Your task to perform on an android device: See recent photos Image 0: 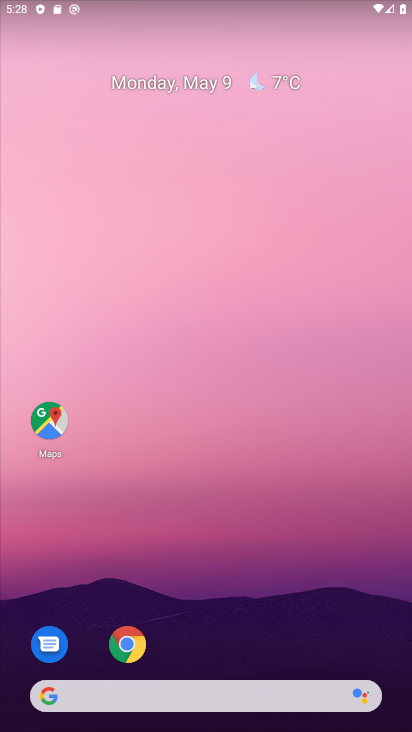
Step 0: drag from (219, 602) to (230, 63)
Your task to perform on an android device: See recent photos Image 1: 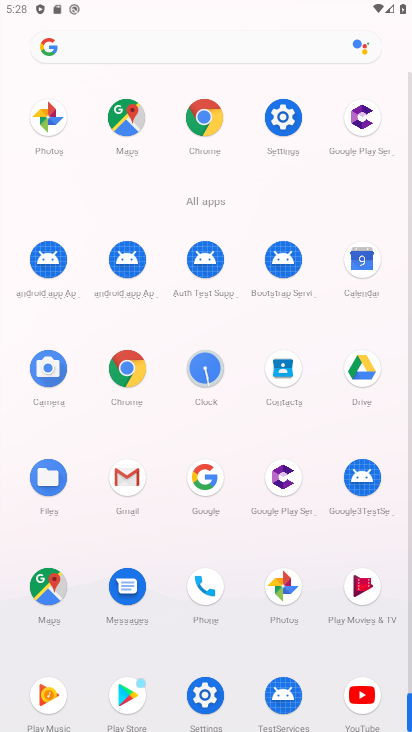
Step 1: click (280, 586)
Your task to perform on an android device: See recent photos Image 2: 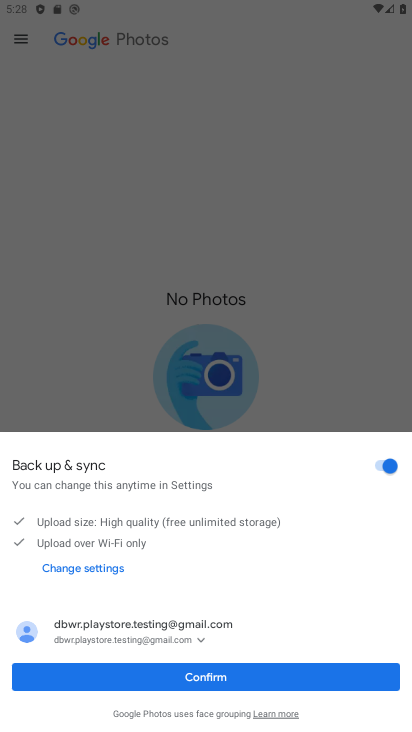
Step 2: click (219, 678)
Your task to perform on an android device: See recent photos Image 3: 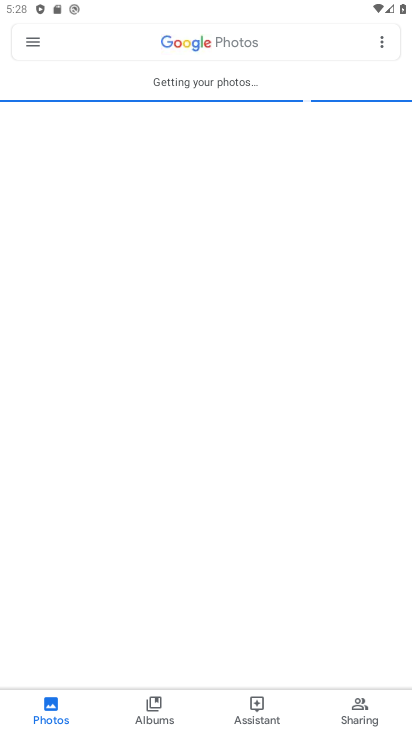
Step 3: click (23, 39)
Your task to perform on an android device: See recent photos Image 4: 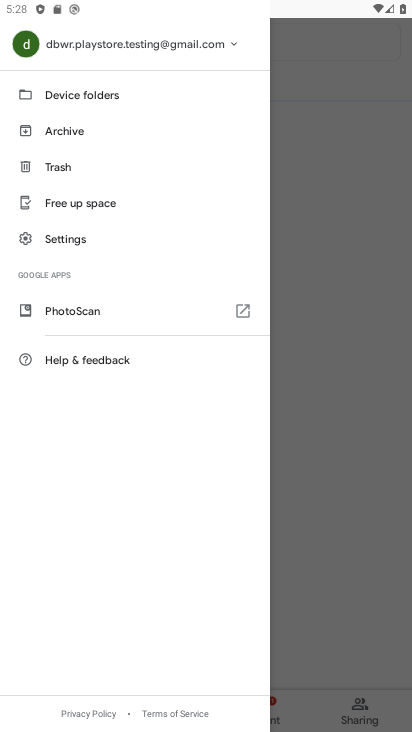
Step 4: click (336, 232)
Your task to perform on an android device: See recent photos Image 5: 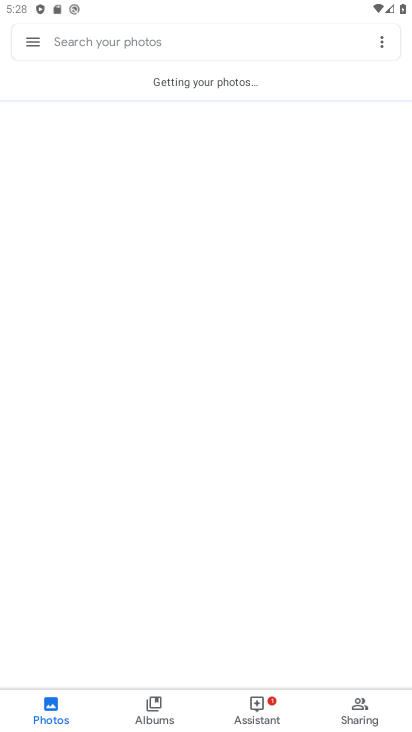
Step 5: click (154, 703)
Your task to perform on an android device: See recent photos Image 6: 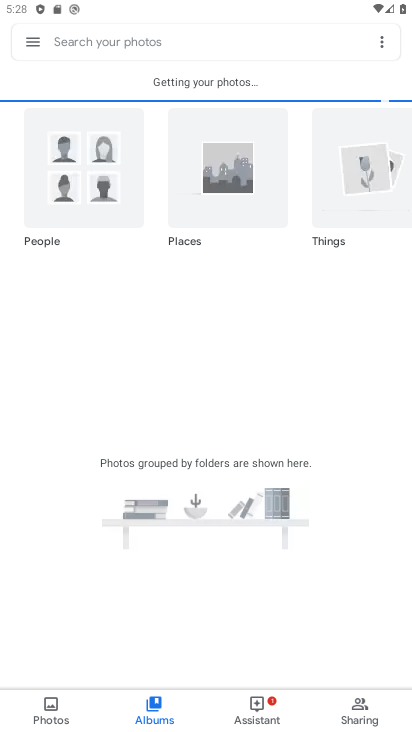
Step 6: click (212, 47)
Your task to perform on an android device: See recent photos Image 7: 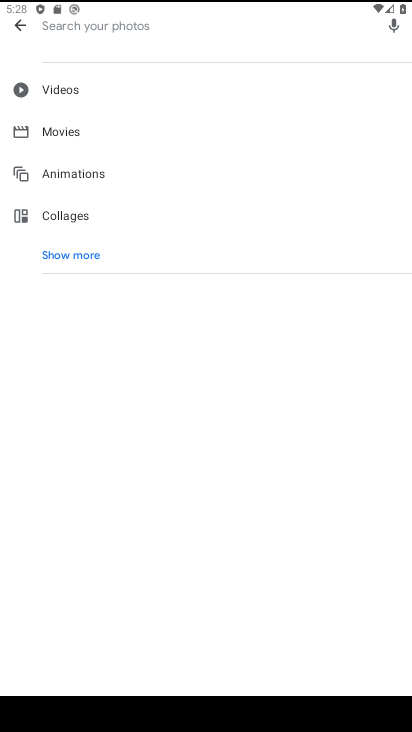
Step 7: click (73, 258)
Your task to perform on an android device: See recent photos Image 8: 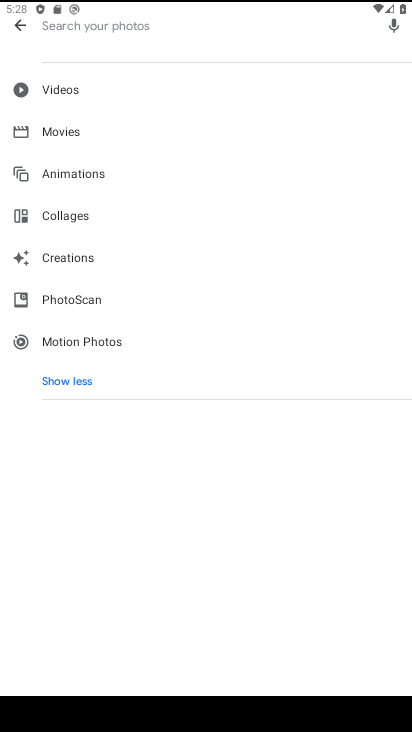
Step 8: click (130, 38)
Your task to perform on an android device: See recent photos Image 9: 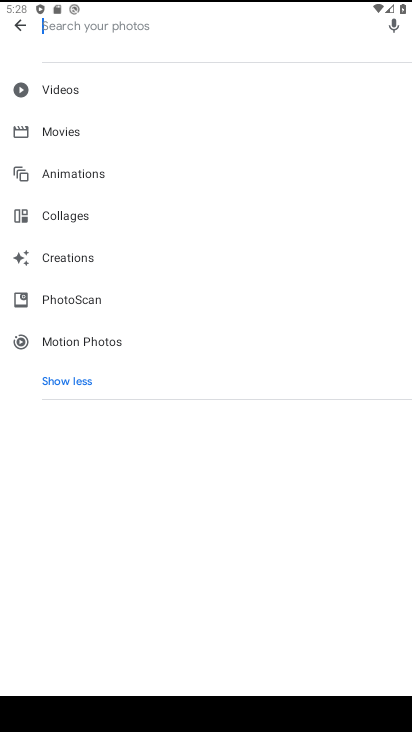
Step 9: type "recent photos"
Your task to perform on an android device: See recent photos Image 10: 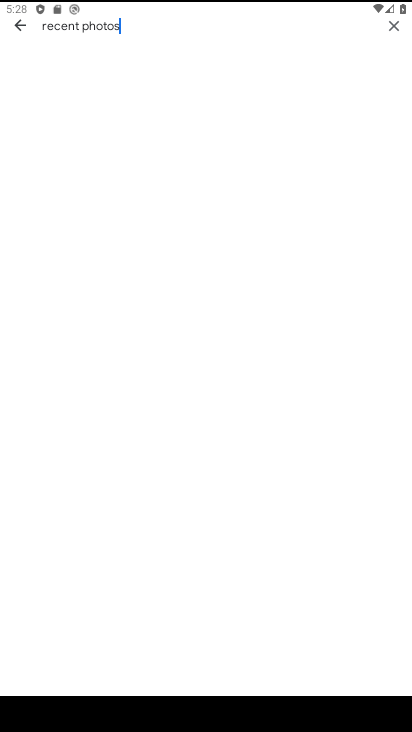
Step 10: task complete